Your task to perform on an android device: turn off location Image 0: 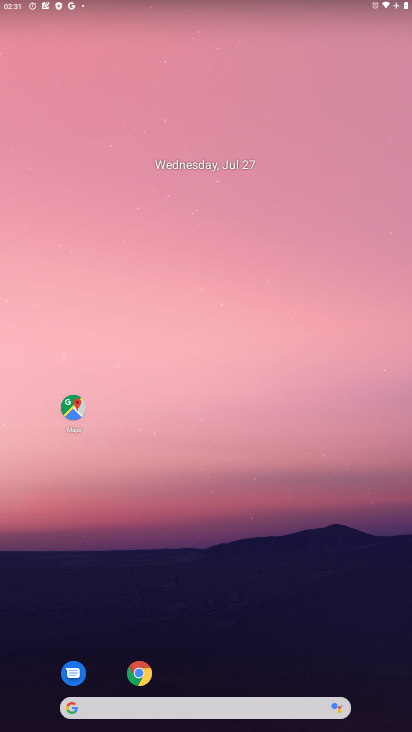
Step 0: drag from (219, 689) to (175, 15)
Your task to perform on an android device: turn off location Image 1: 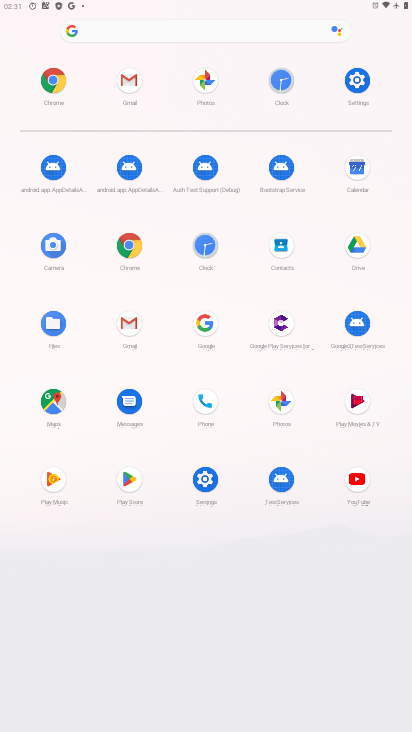
Step 1: click (366, 79)
Your task to perform on an android device: turn off location Image 2: 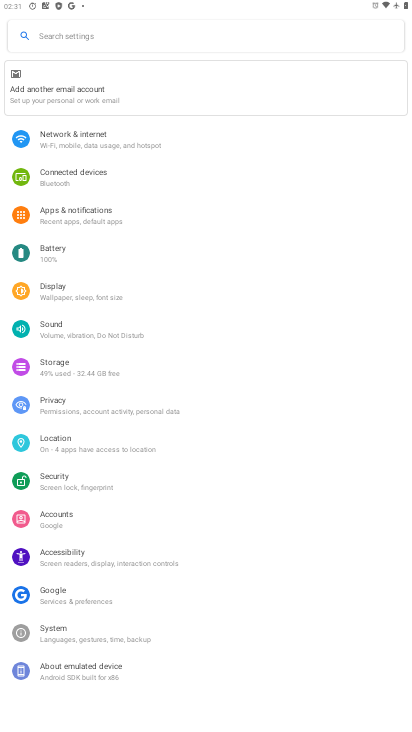
Step 2: click (55, 456)
Your task to perform on an android device: turn off location Image 3: 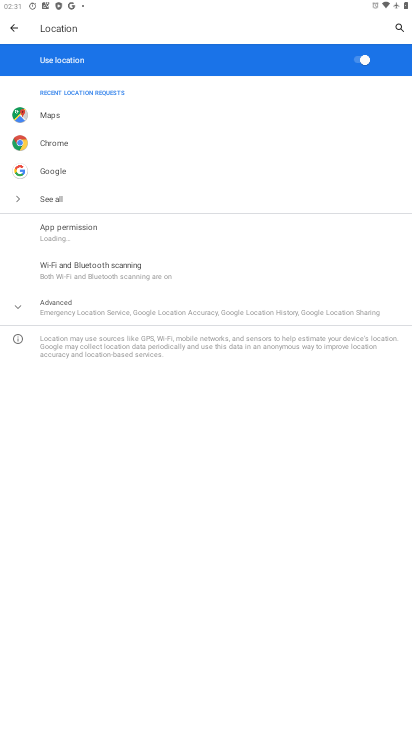
Step 3: click (359, 69)
Your task to perform on an android device: turn off location Image 4: 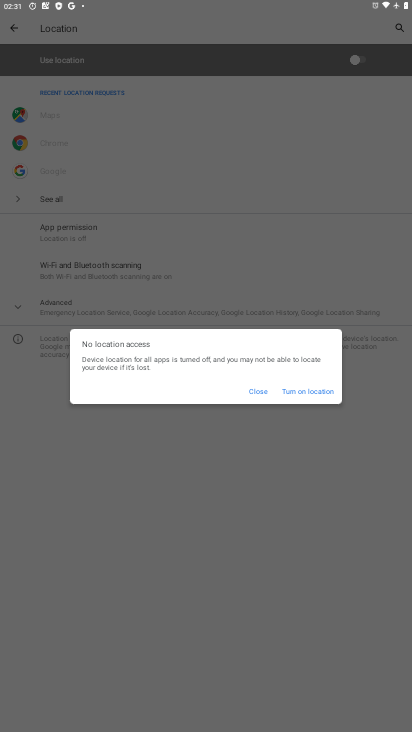
Step 4: task complete